Your task to perform on an android device: Add razer blackwidow to the cart on amazon.com, then select checkout. Image 0: 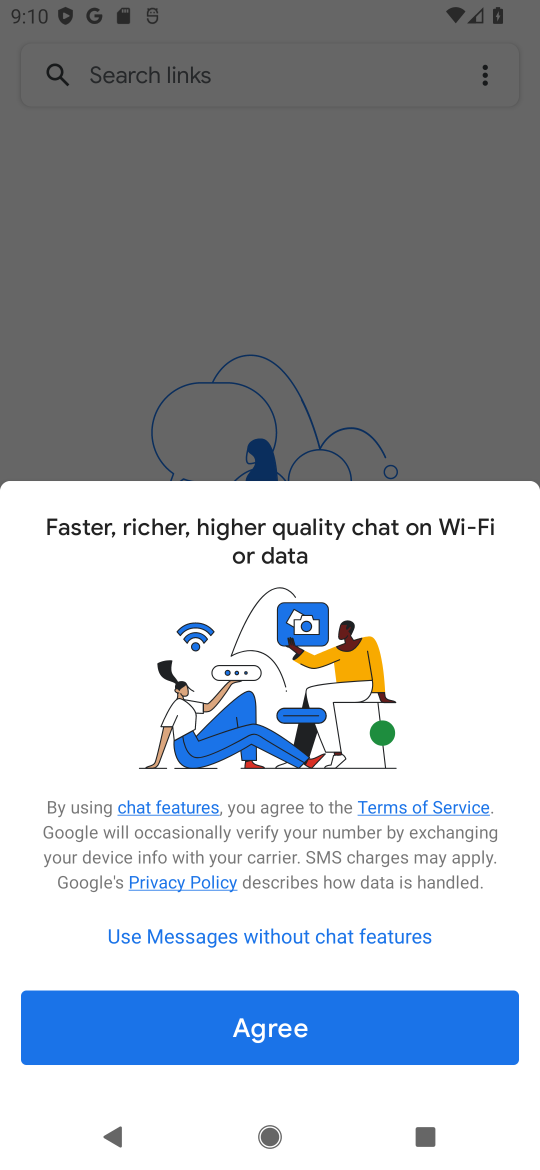
Step 0: press home button
Your task to perform on an android device: Add razer blackwidow to the cart on amazon.com, then select checkout. Image 1: 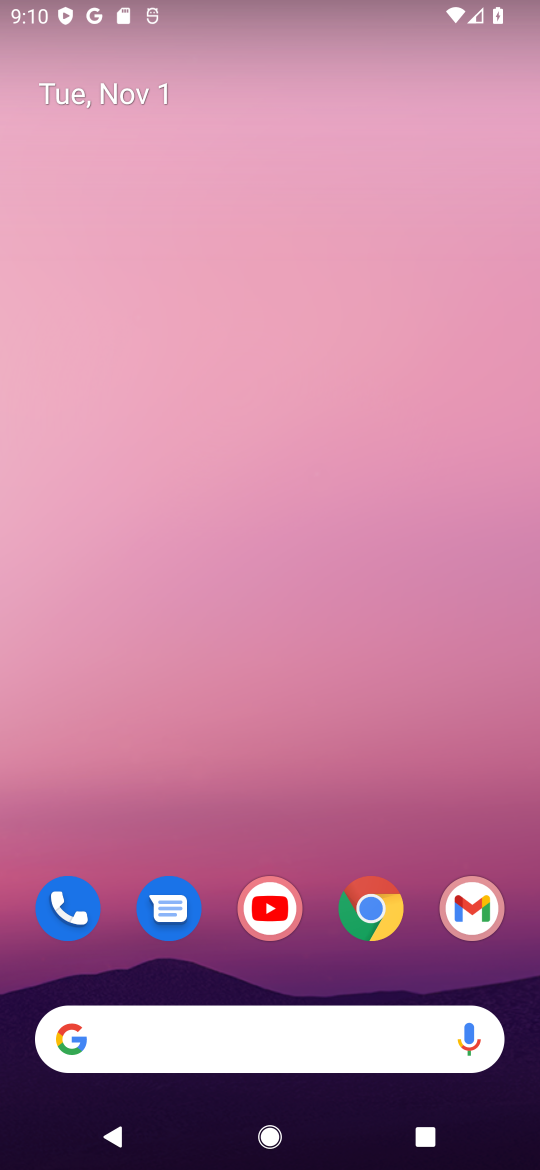
Step 1: click (385, 907)
Your task to perform on an android device: Add razer blackwidow to the cart on amazon.com, then select checkout. Image 2: 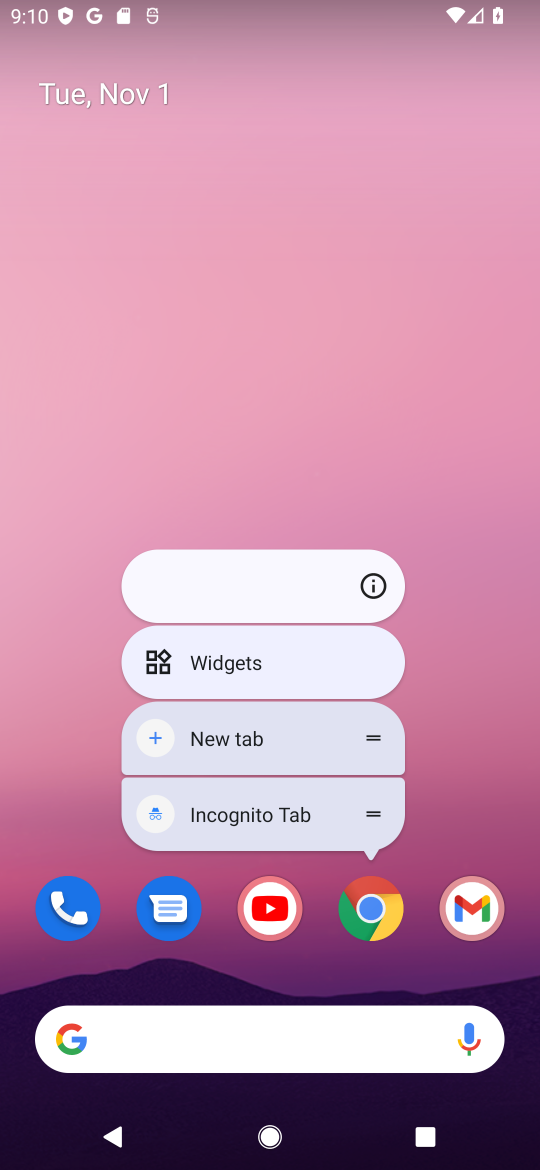
Step 2: click (376, 928)
Your task to perform on an android device: Add razer blackwidow to the cart on amazon.com, then select checkout. Image 3: 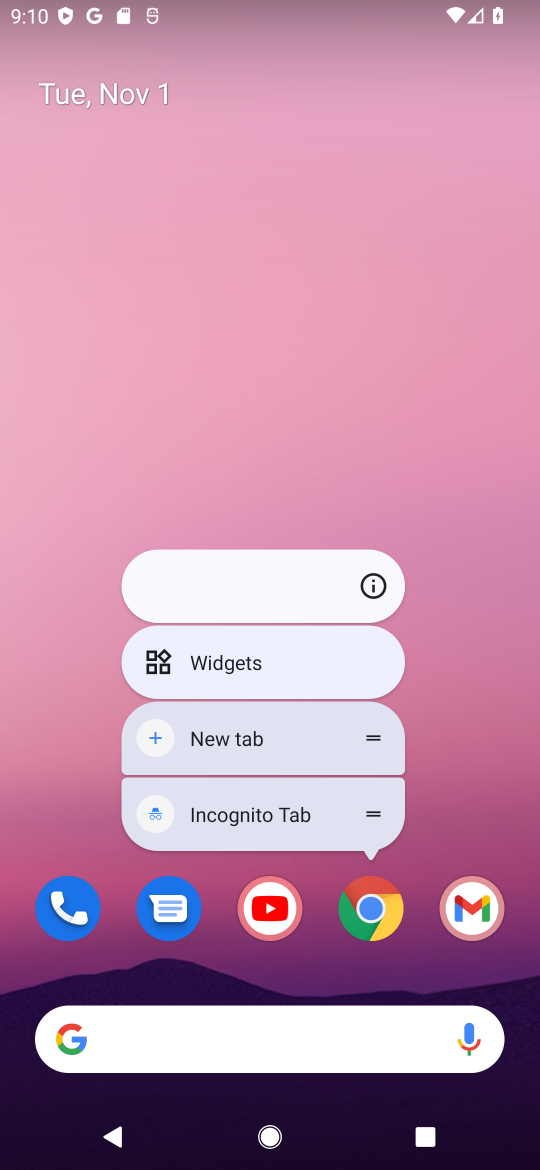
Step 3: click (376, 935)
Your task to perform on an android device: Add razer blackwidow to the cart on amazon.com, then select checkout. Image 4: 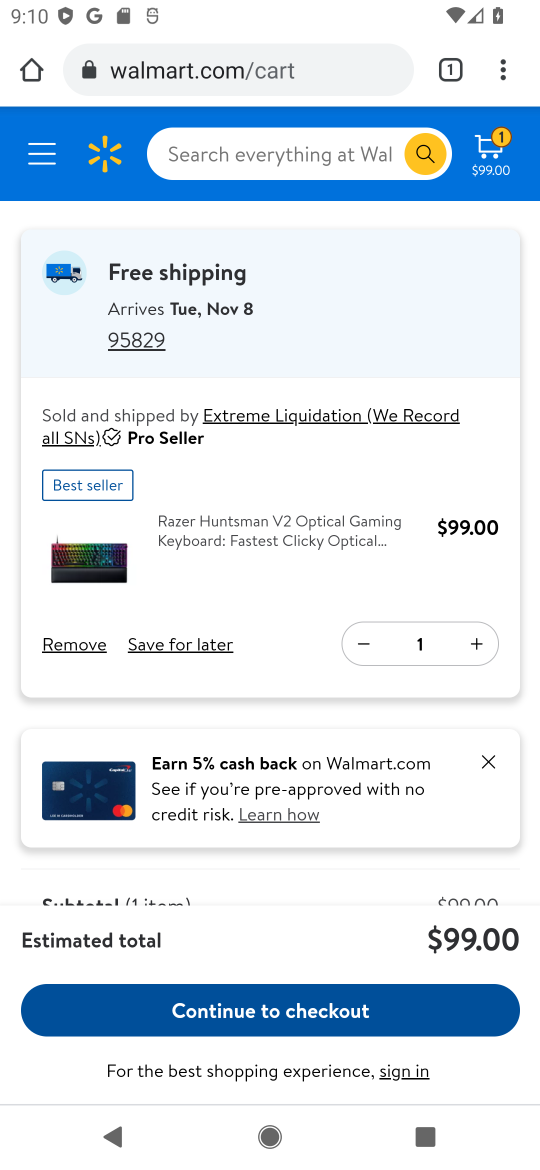
Step 4: click (196, 75)
Your task to perform on an android device: Add razer blackwidow to the cart on amazon.com, then select checkout. Image 5: 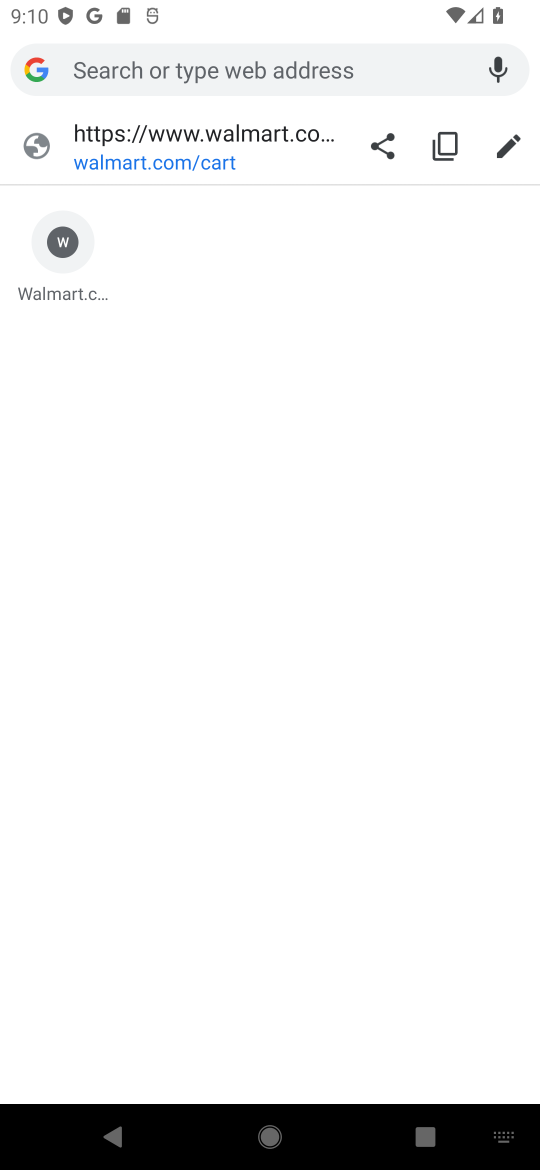
Step 5: type "amazon.com"
Your task to perform on an android device: Add razer blackwidow to the cart on amazon.com, then select checkout. Image 6: 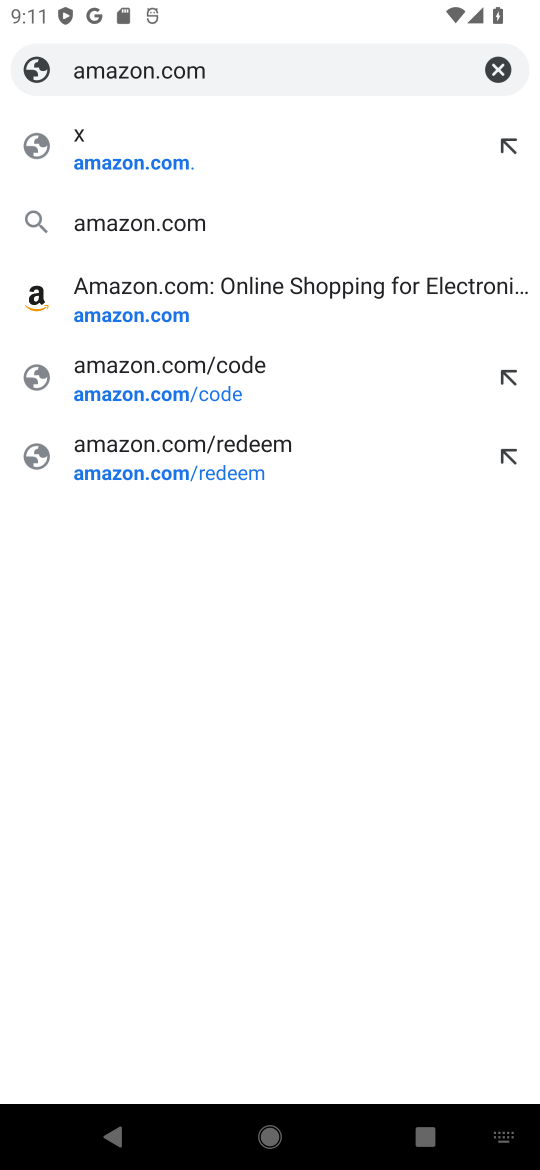
Step 6: press enter
Your task to perform on an android device: Add razer blackwidow to the cart on amazon.com, then select checkout. Image 7: 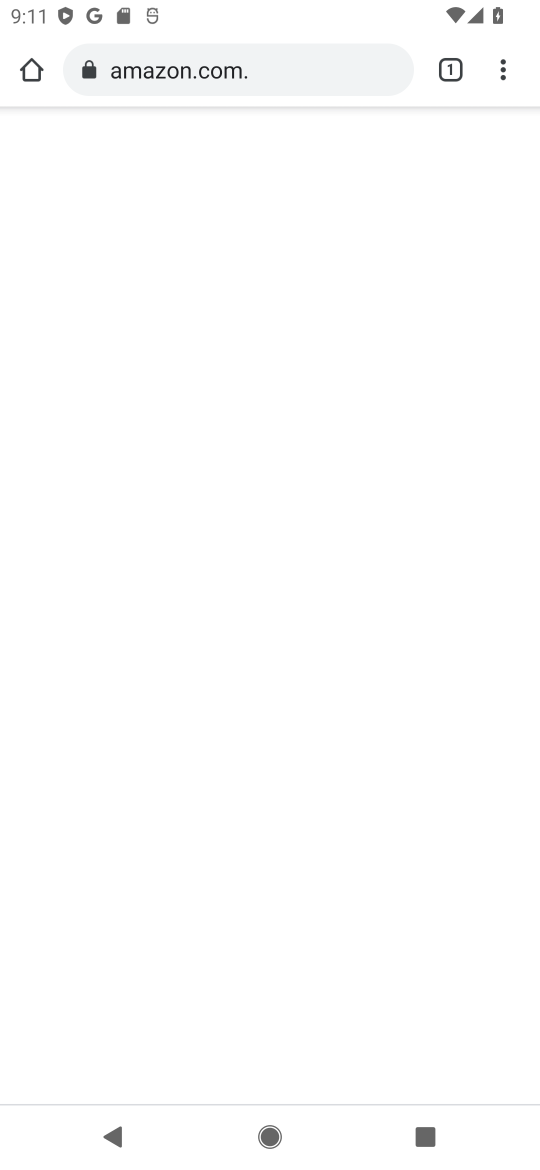
Step 7: click (306, 73)
Your task to perform on an android device: Add razer blackwidow to the cart on amazon.com, then select checkout. Image 8: 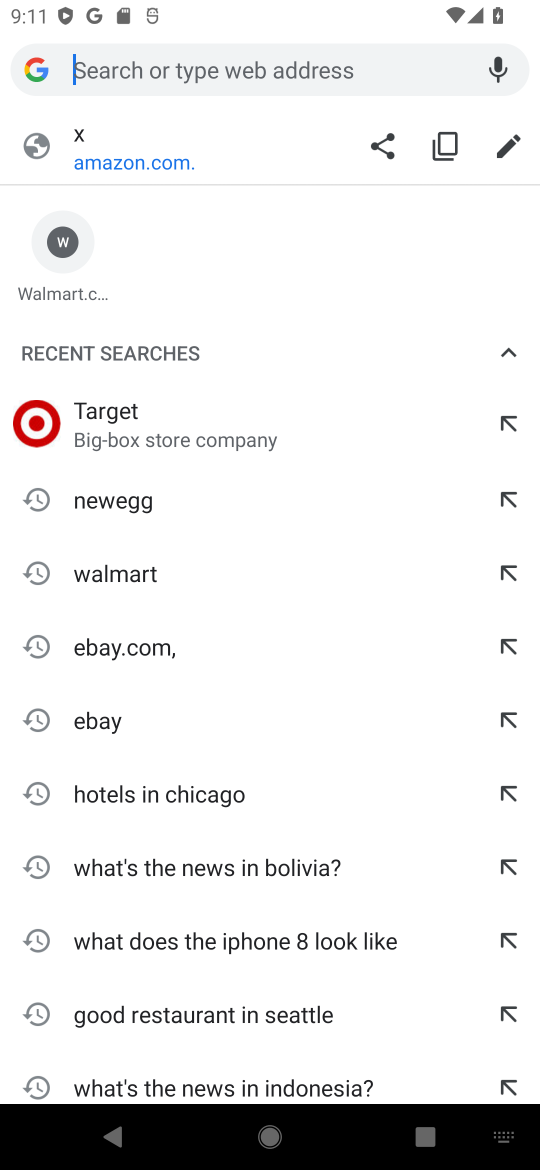
Step 8: type "amazon.com"
Your task to perform on an android device: Add razer blackwidow to the cart on amazon.com, then select checkout. Image 9: 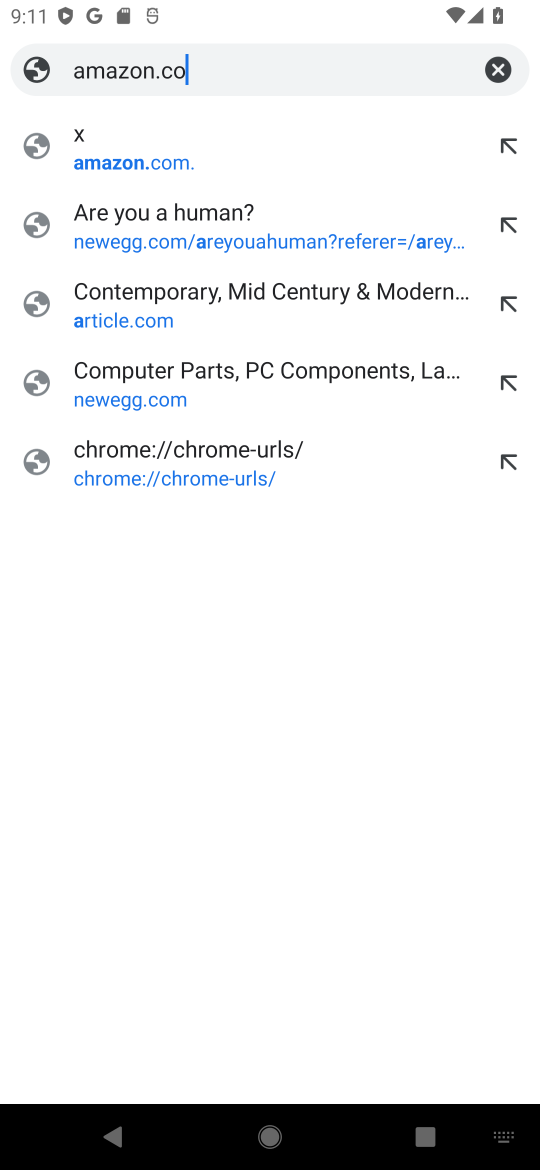
Step 9: type ""
Your task to perform on an android device: Add razer blackwidow to the cart on amazon.com, then select checkout. Image 10: 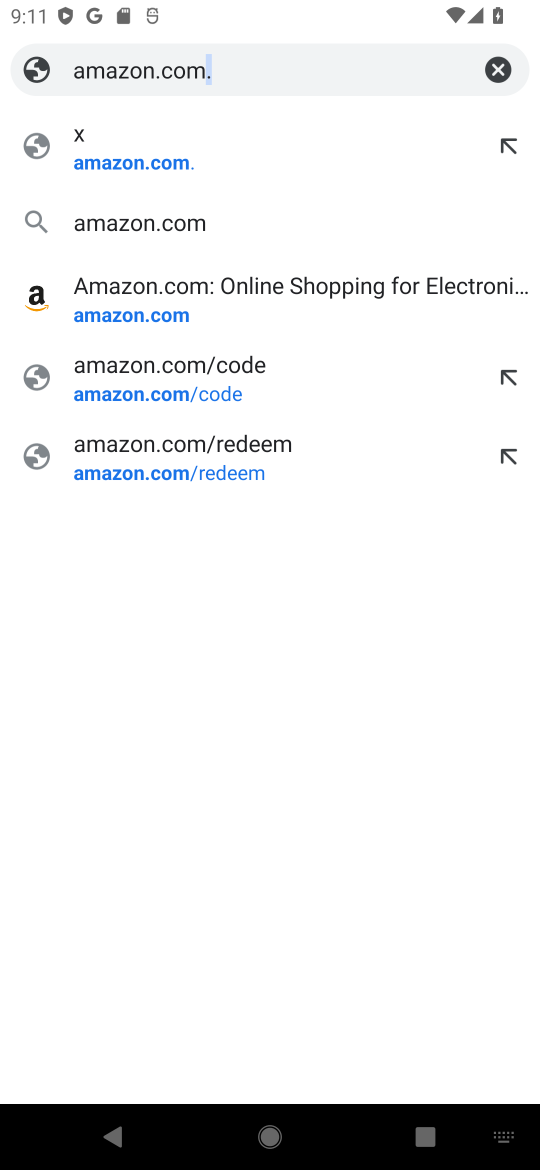
Step 10: press enter
Your task to perform on an android device: Add razer blackwidow to the cart on amazon.com, then select checkout. Image 11: 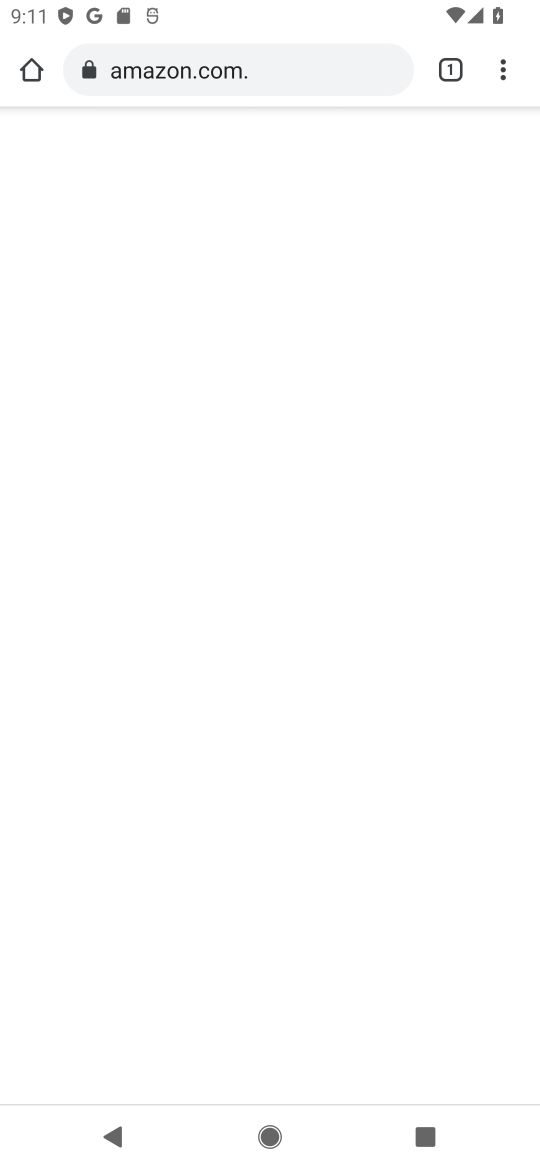
Step 11: click (286, 75)
Your task to perform on an android device: Add razer blackwidow to the cart on amazon.com, then select checkout. Image 12: 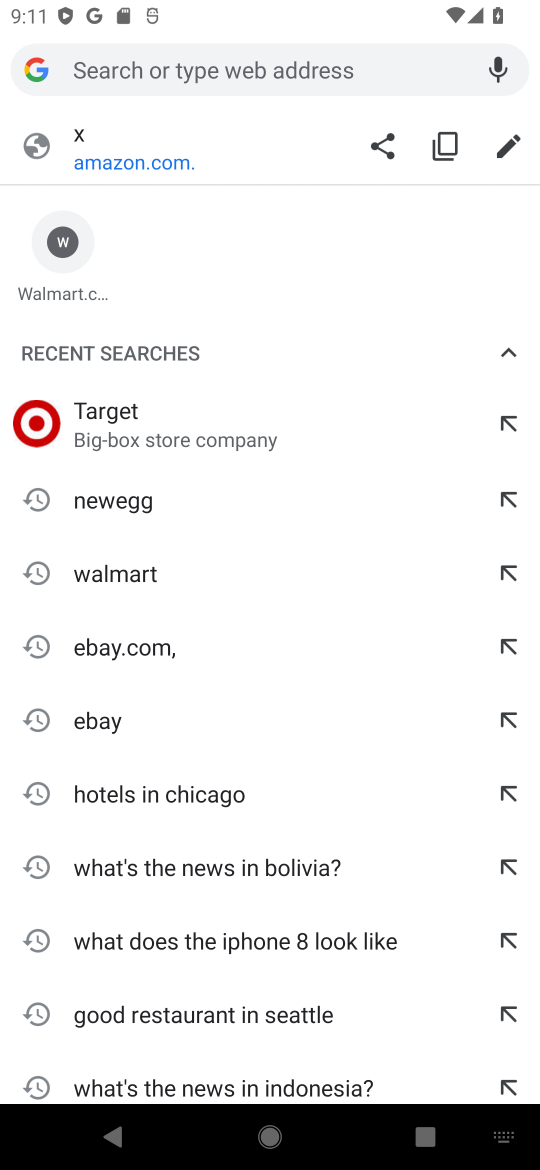
Step 12: type "amazon.com"
Your task to perform on an android device: Add razer blackwidow to the cart on amazon.com, then select checkout. Image 13: 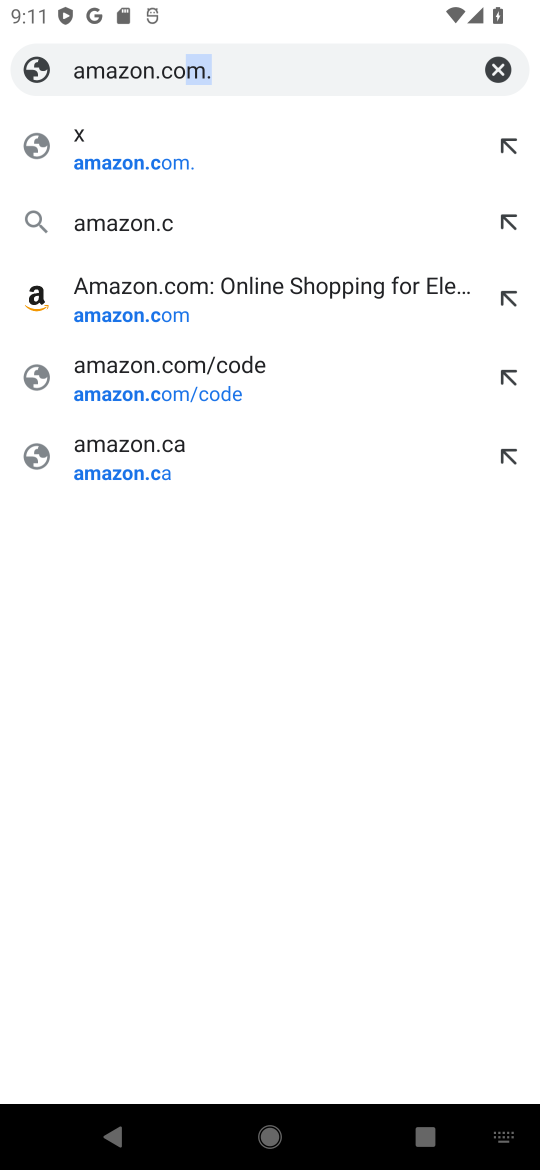
Step 13: type ""
Your task to perform on an android device: Add razer blackwidow to the cart on amazon.com, then select checkout. Image 14: 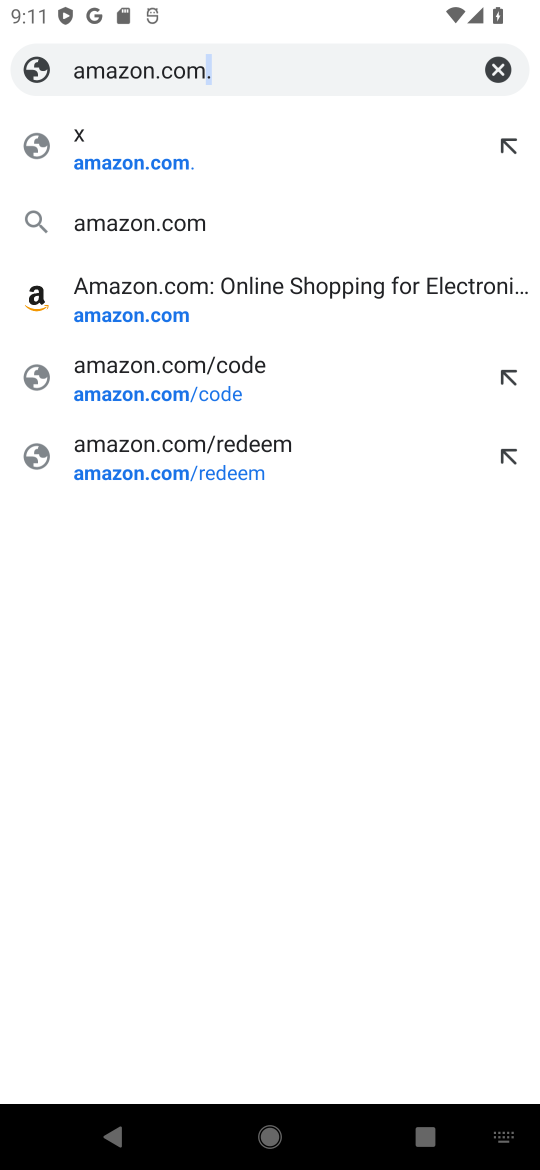
Step 14: click (227, 231)
Your task to perform on an android device: Add razer blackwidow to the cart on amazon.com, then select checkout. Image 15: 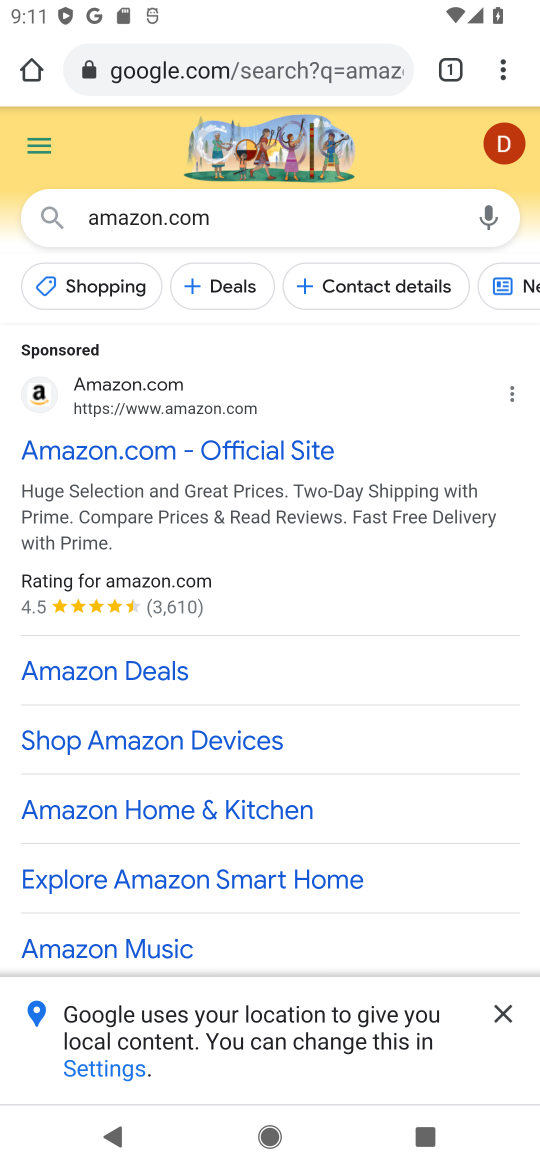
Step 15: click (186, 457)
Your task to perform on an android device: Add razer blackwidow to the cart on amazon.com, then select checkout. Image 16: 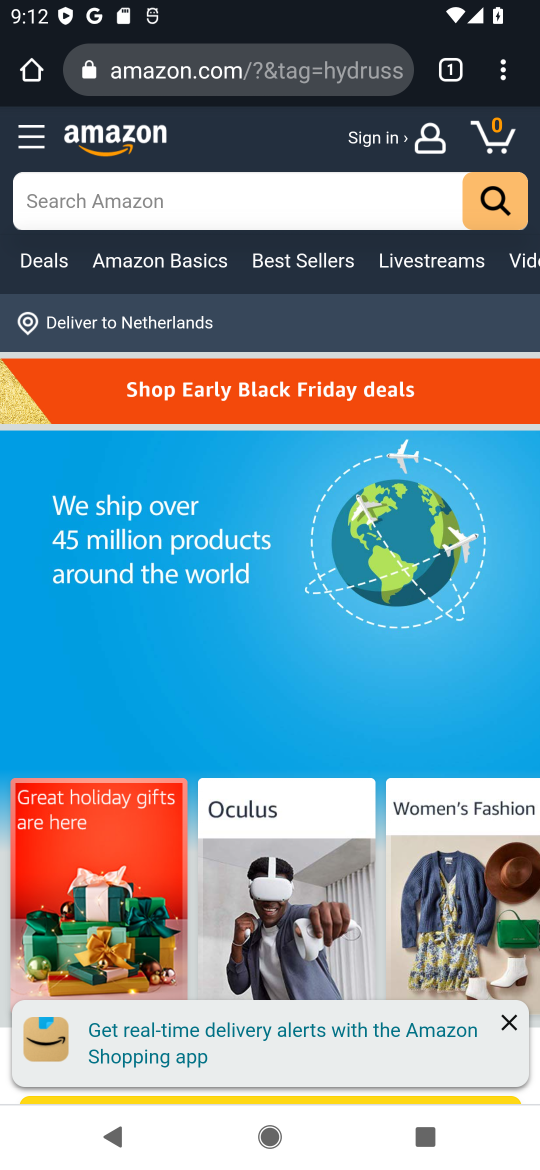
Step 16: click (228, 203)
Your task to perform on an android device: Add razer blackwidow to the cart on amazon.com, then select checkout. Image 17: 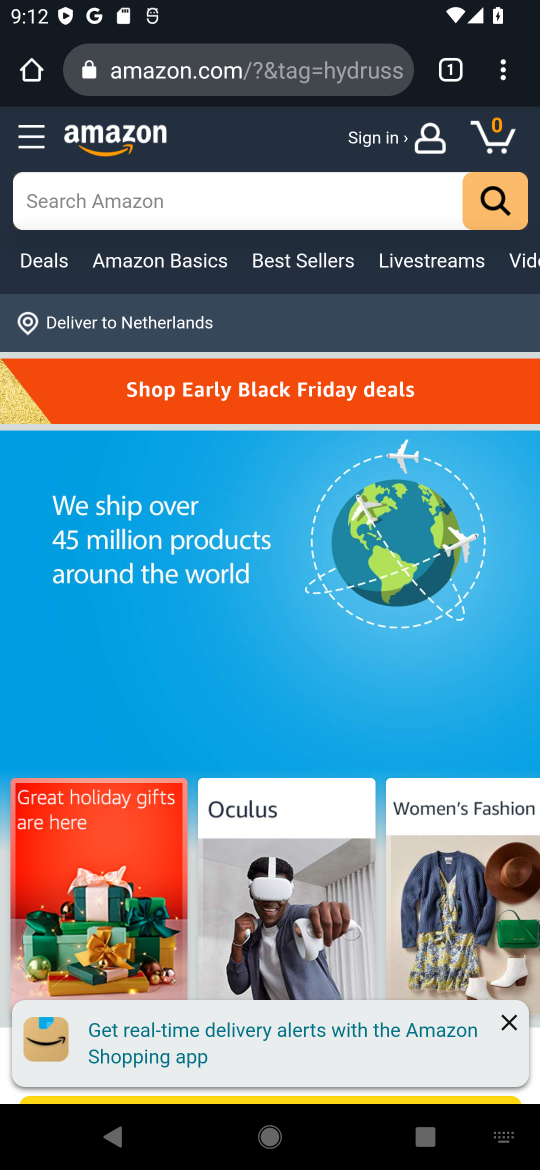
Step 17: type "razer blackwidow"
Your task to perform on an android device: Add razer blackwidow to the cart on amazon.com, then select checkout. Image 18: 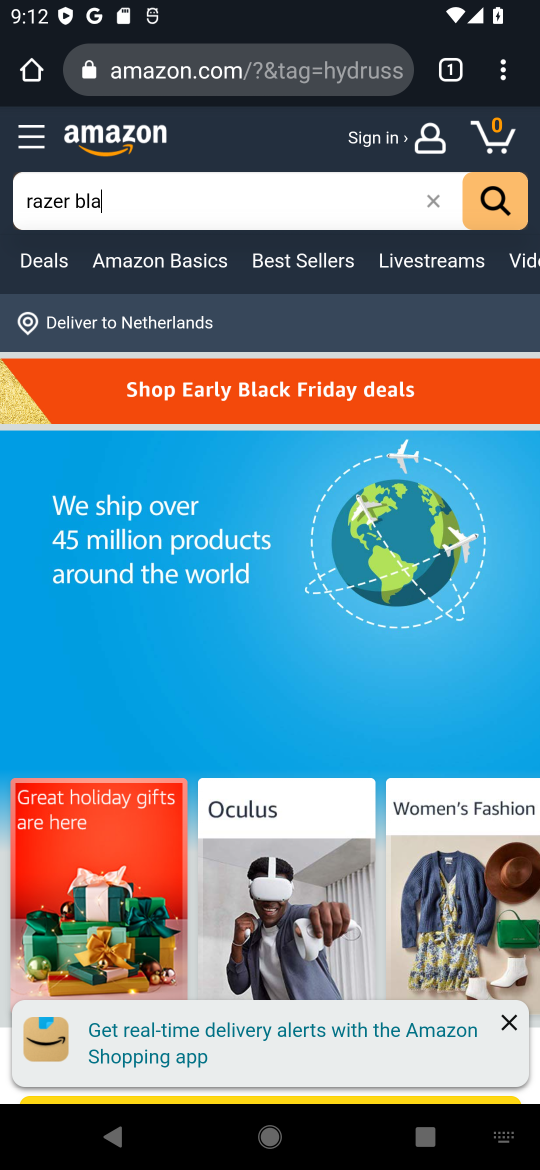
Step 18: type ""
Your task to perform on an android device: Add razer blackwidow to the cart on amazon.com, then select checkout. Image 19: 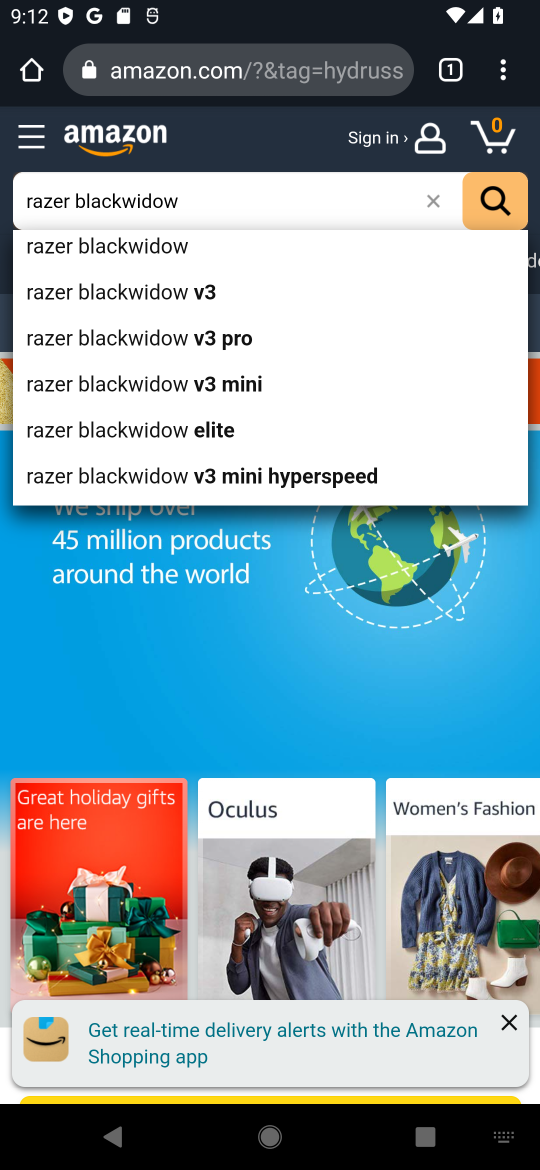
Step 19: press enter
Your task to perform on an android device: Add razer blackwidow to the cart on amazon.com, then select checkout. Image 20: 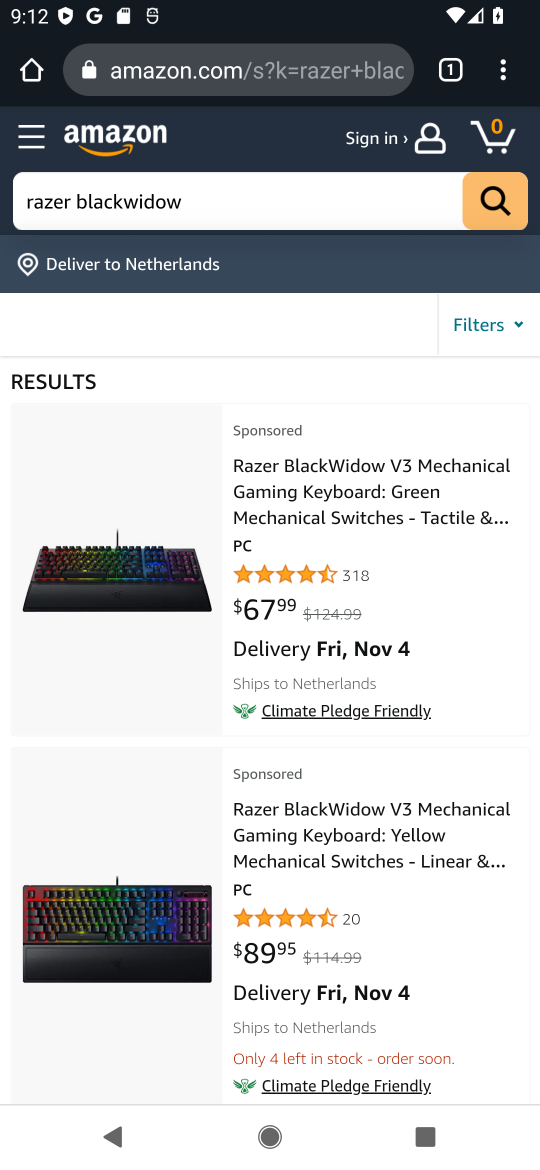
Step 20: click (373, 516)
Your task to perform on an android device: Add razer blackwidow to the cart on amazon.com, then select checkout. Image 21: 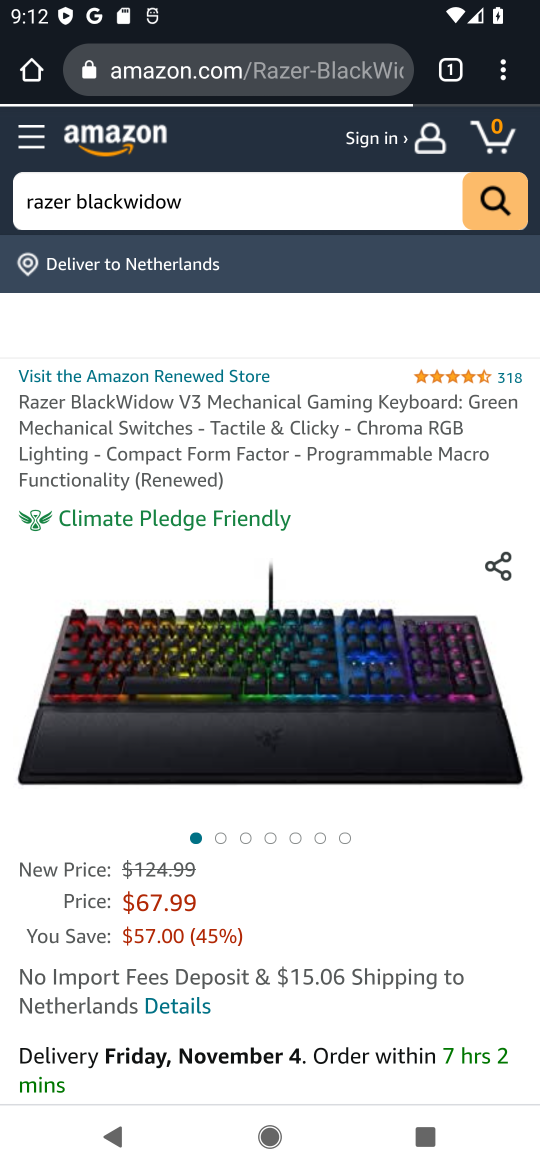
Step 21: drag from (428, 902) to (396, 358)
Your task to perform on an android device: Add razer blackwidow to the cart on amazon.com, then select checkout. Image 22: 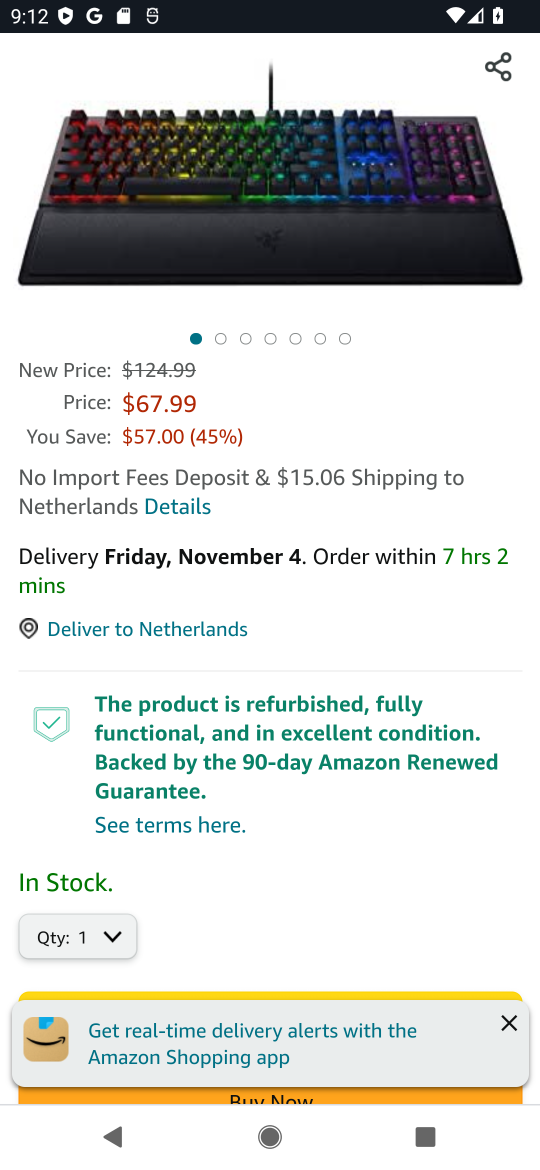
Step 22: click (510, 1028)
Your task to perform on an android device: Add razer blackwidow to the cart on amazon.com, then select checkout. Image 23: 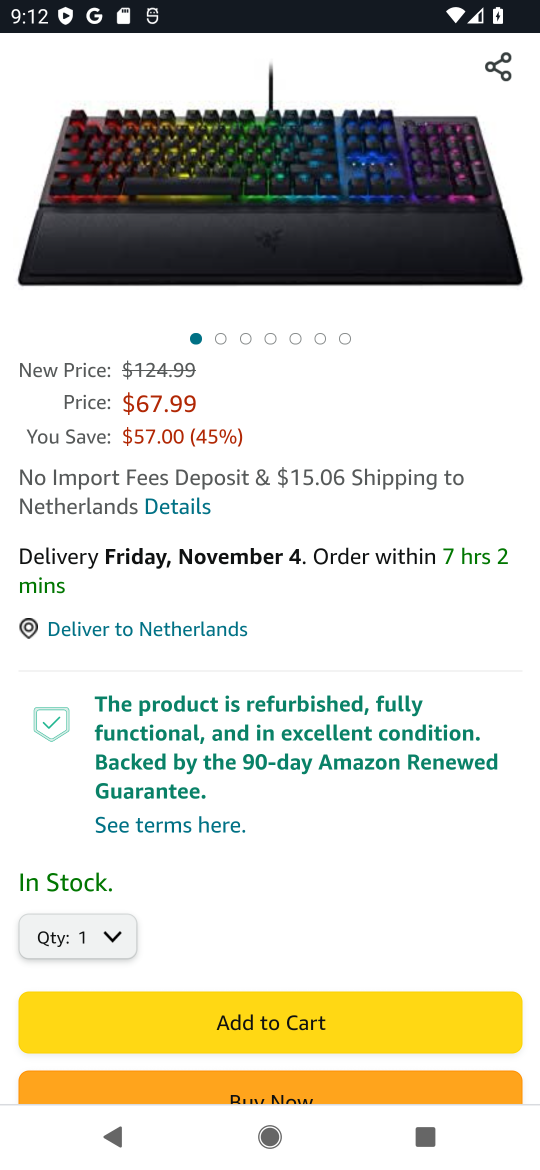
Step 23: click (400, 1030)
Your task to perform on an android device: Add razer blackwidow to the cart on amazon.com, then select checkout. Image 24: 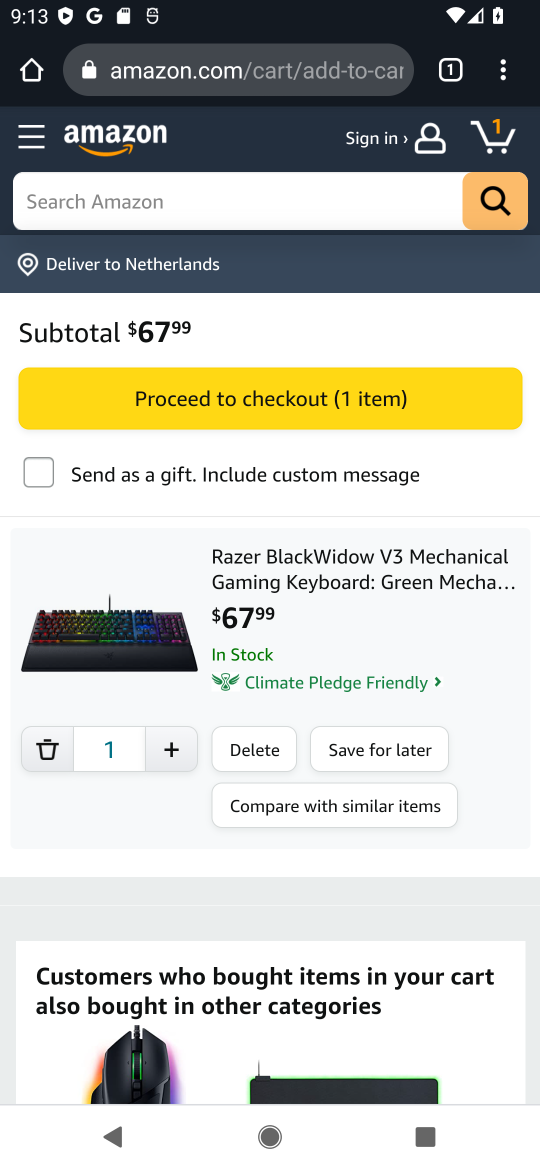
Step 24: click (285, 398)
Your task to perform on an android device: Add razer blackwidow to the cart on amazon.com, then select checkout. Image 25: 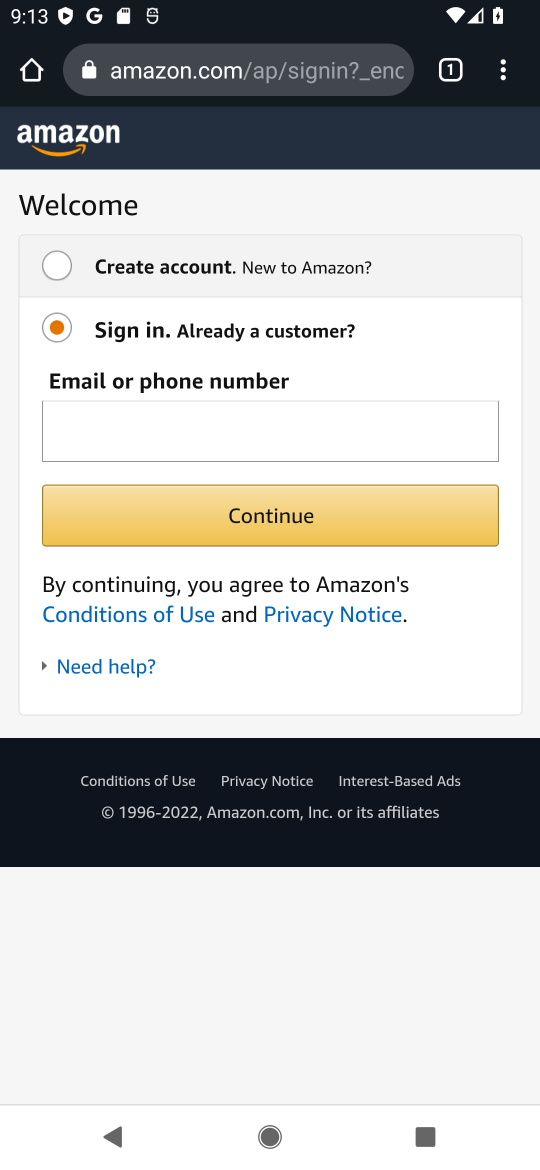
Step 25: task complete